Your task to perform on an android device: Do I have any events today? Image 0: 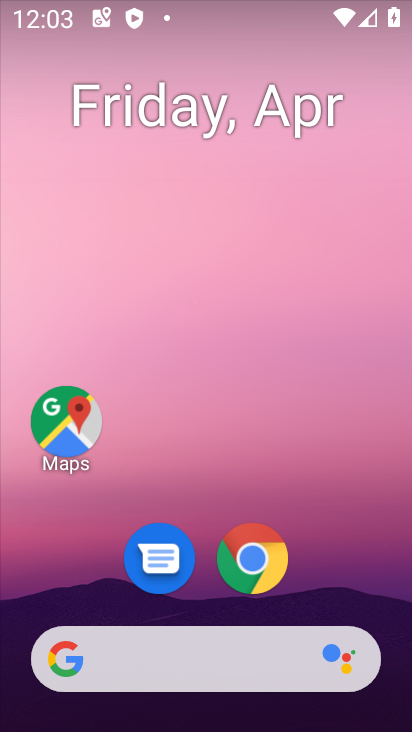
Step 0: drag from (378, 598) to (200, 48)
Your task to perform on an android device: Do I have any events today? Image 1: 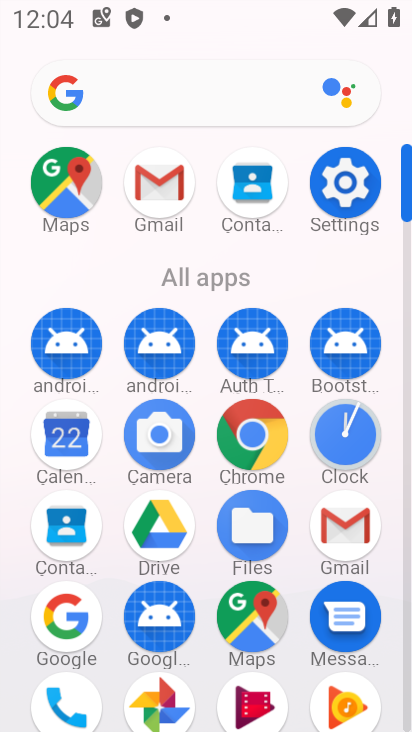
Step 1: click (69, 445)
Your task to perform on an android device: Do I have any events today? Image 2: 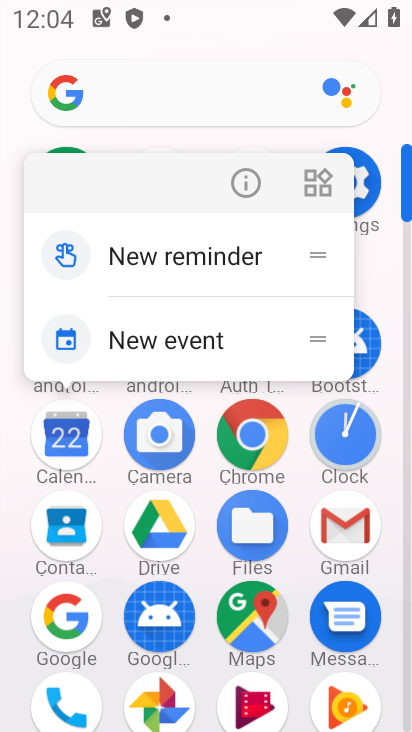
Step 2: click (69, 445)
Your task to perform on an android device: Do I have any events today? Image 3: 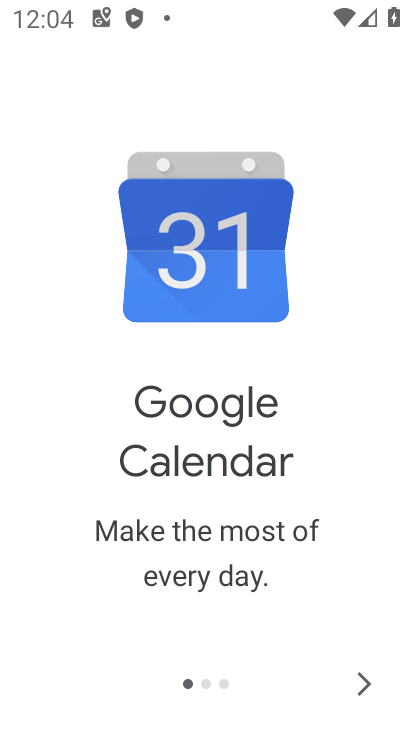
Step 3: click (355, 684)
Your task to perform on an android device: Do I have any events today? Image 4: 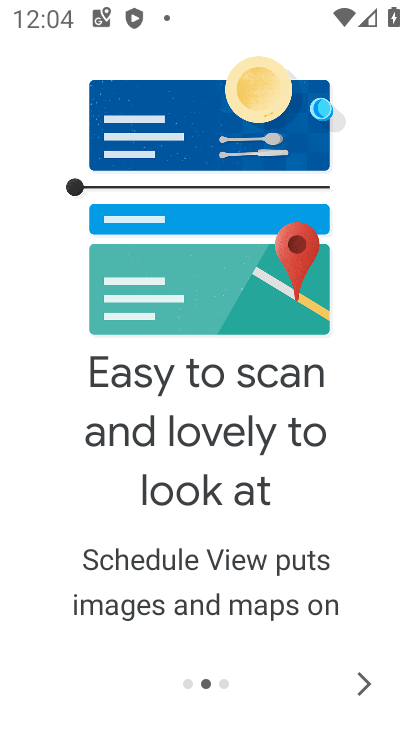
Step 4: click (355, 684)
Your task to perform on an android device: Do I have any events today? Image 5: 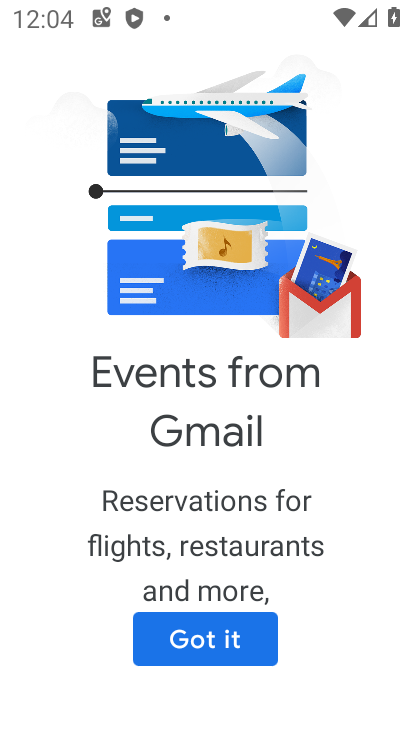
Step 5: click (192, 620)
Your task to perform on an android device: Do I have any events today? Image 6: 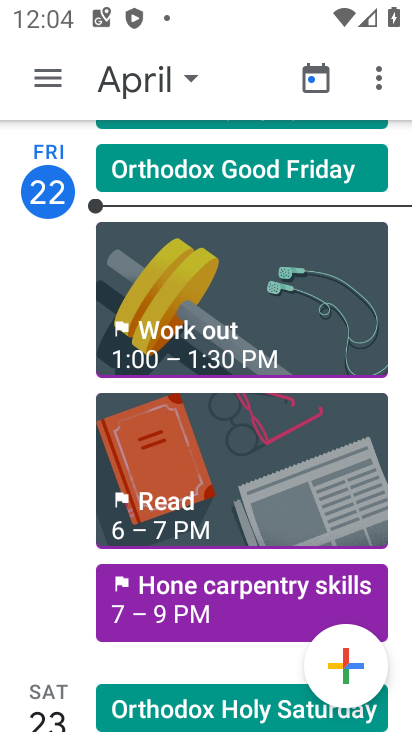
Step 6: click (57, 184)
Your task to perform on an android device: Do I have any events today? Image 7: 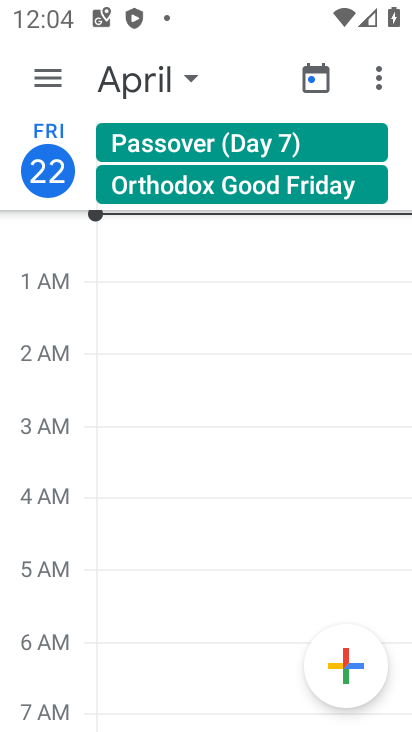
Step 7: click (163, 155)
Your task to perform on an android device: Do I have any events today? Image 8: 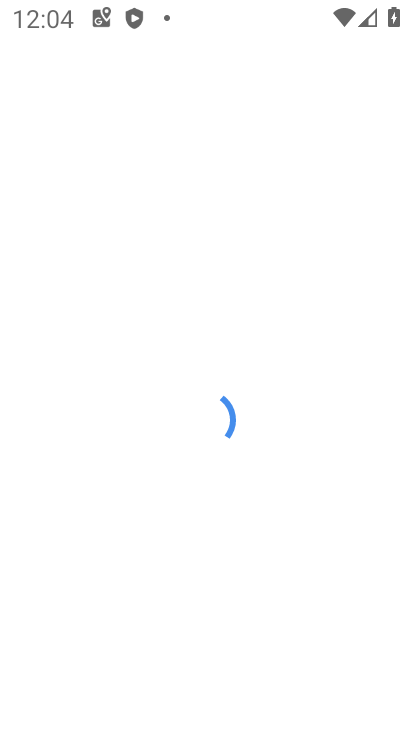
Step 8: task complete